Your task to perform on an android device: Open Yahoo.com Image 0: 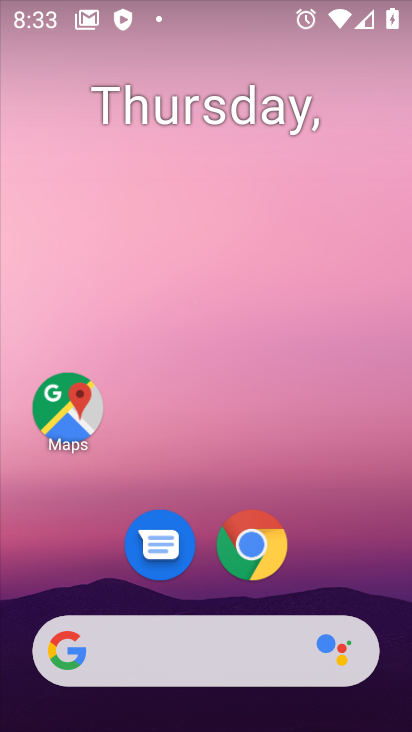
Step 0: click (257, 549)
Your task to perform on an android device: Open Yahoo.com Image 1: 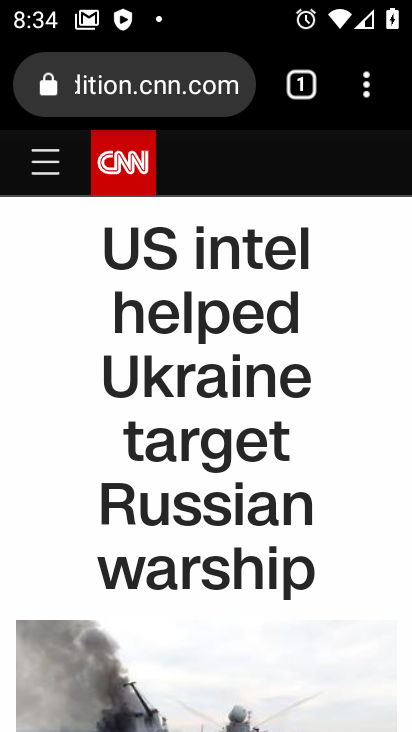
Step 1: click (290, 97)
Your task to perform on an android device: Open Yahoo.com Image 2: 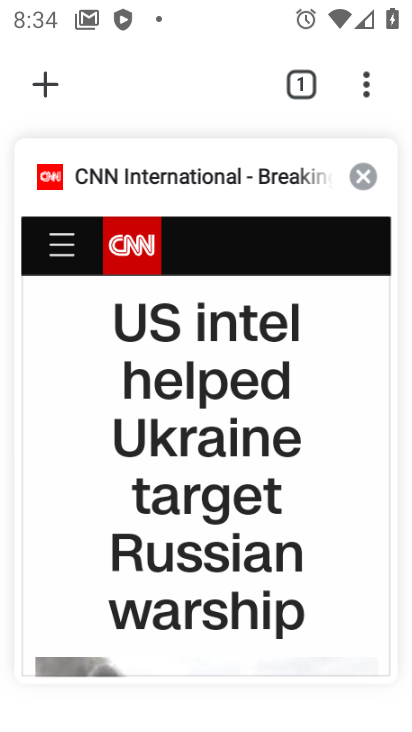
Step 2: click (63, 91)
Your task to perform on an android device: Open Yahoo.com Image 3: 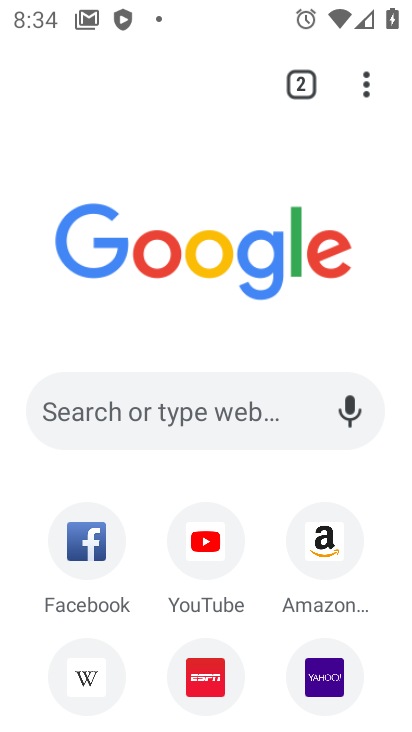
Step 3: click (336, 665)
Your task to perform on an android device: Open Yahoo.com Image 4: 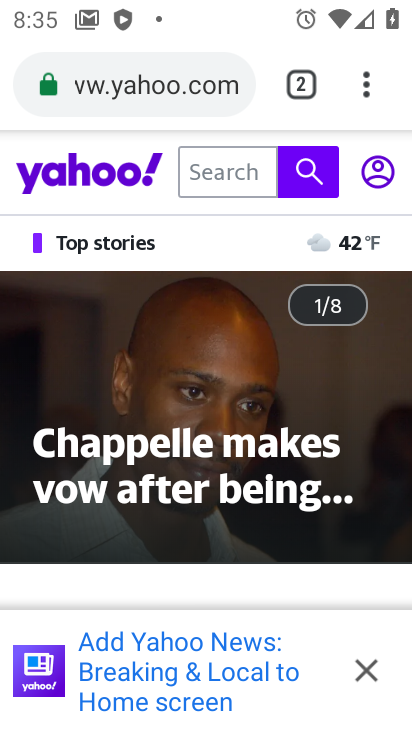
Step 4: task complete